Your task to perform on an android device: Open internet settings Image 0: 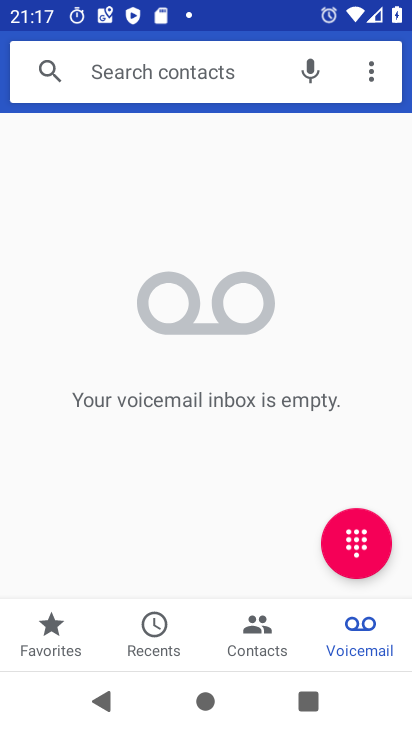
Step 0: press home button
Your task to perform on an android device: Open internet settings Image 1: 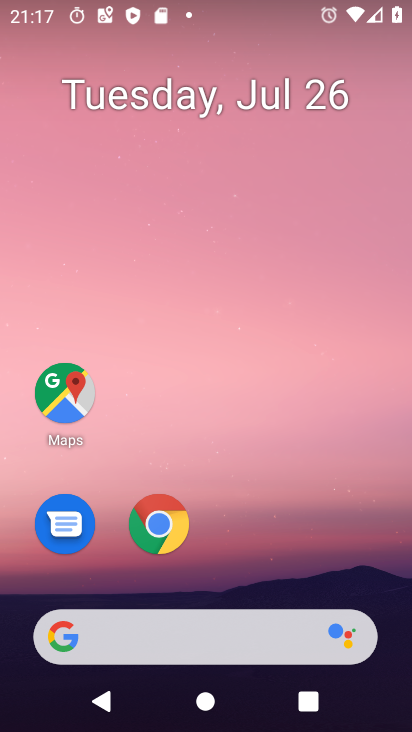
Step 1: drag from (276, 555) to (301, 0)
Your task to perform on an android device: Open internet settings Image 2: 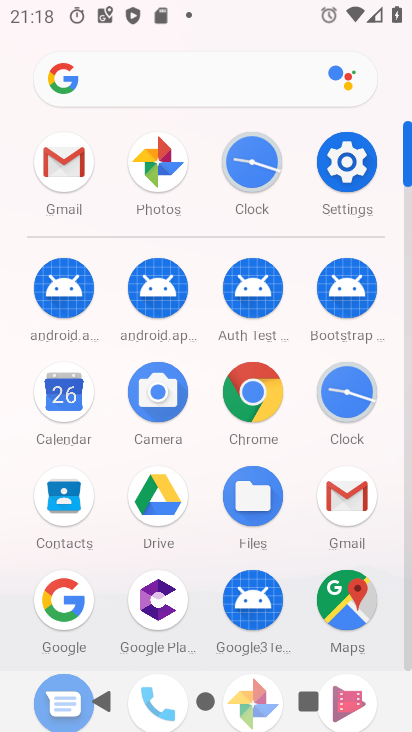
Step 2: click (351, 172)
Your task to perform on an android device: Open internet settings Image 3: 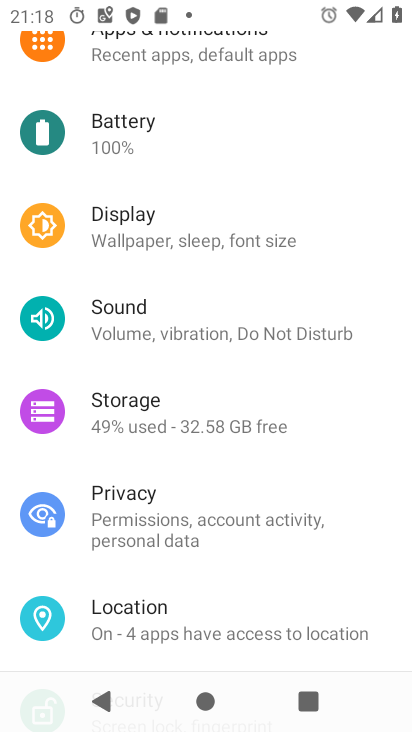
Step 3: drag from (237, 214) to (315, 611)
Your task to perform on an android device: Open internet settings Image 4: 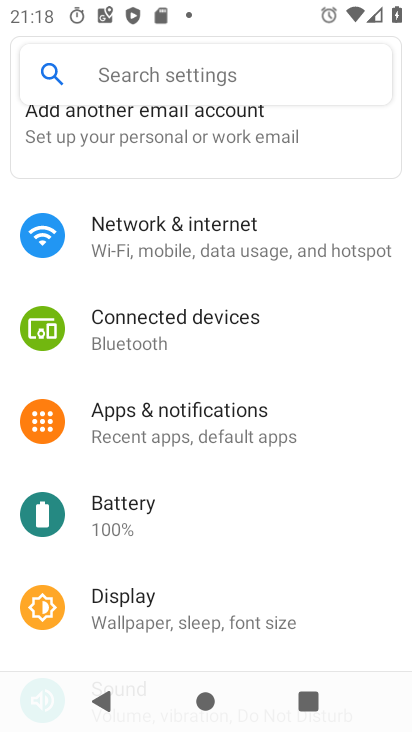
Step 4: click (254, 238)
Your task to perform on an android device: Open internet settings Image 5: 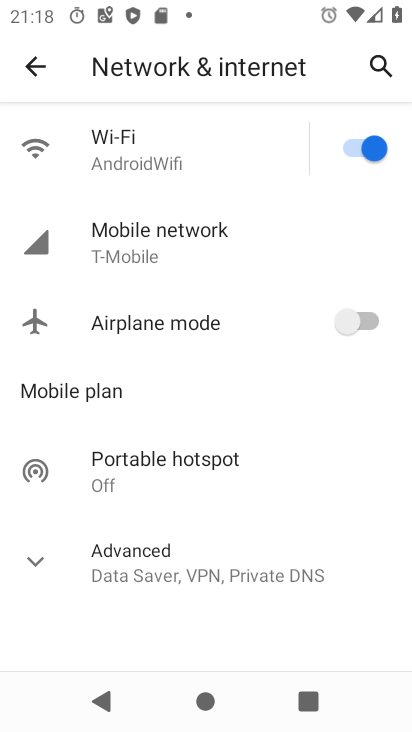
Step 5: task complete